Your task to perform on an android device: Open sound settings Image 0: 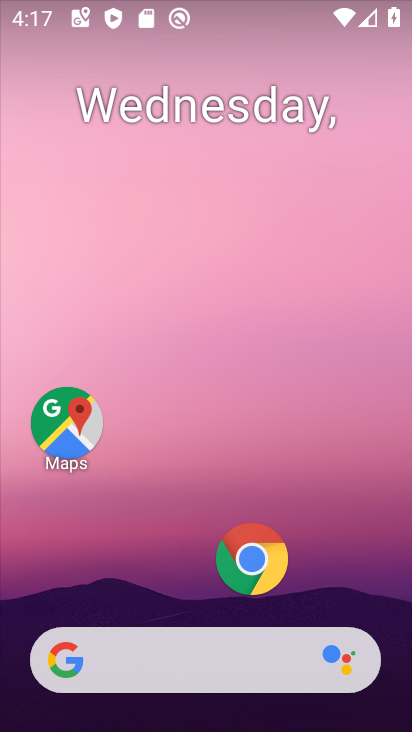
Step 0: drag from (150, 607) to (187, 139)
Your task to perform on an android device: Open sound settings Image 1: 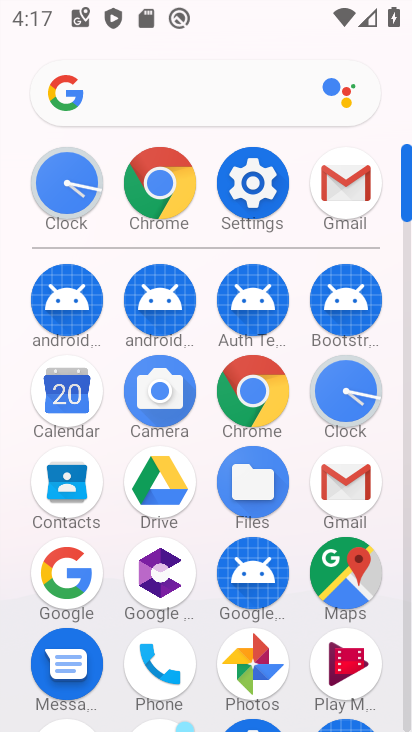
Step 1: click (250, 192)
Your task to perform on an android device: Open sound settings Image 2: 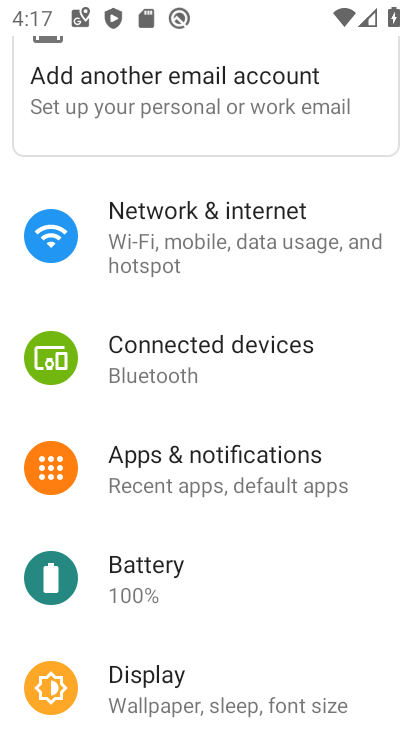
Step 2: drag from (164, 620) to (260, 269)
Your task to perform on an android device: Open sound settings Image 3: 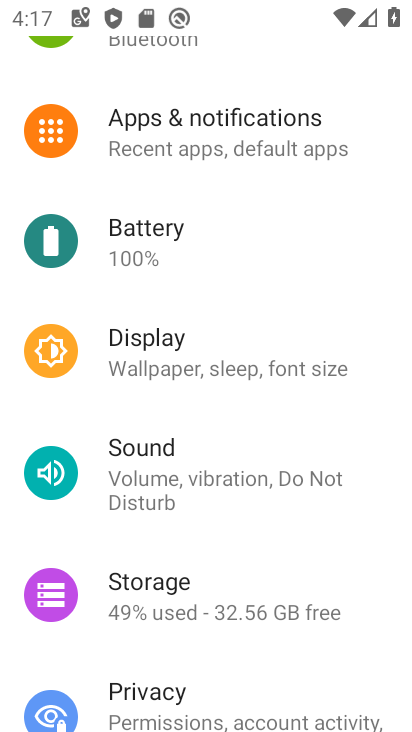
Step 3: click (153, 463)
Your task to perform on an android device: Open sound settings Image 4: 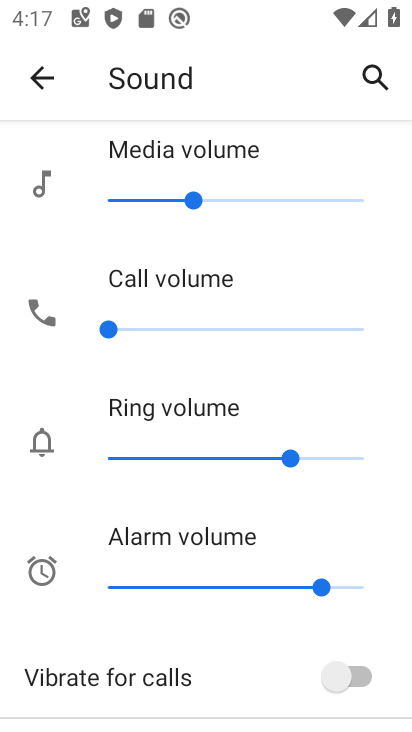
Step 4: task complete